Your task to perform on an android device: see tabs open on other devices in the chrome app Image 0: 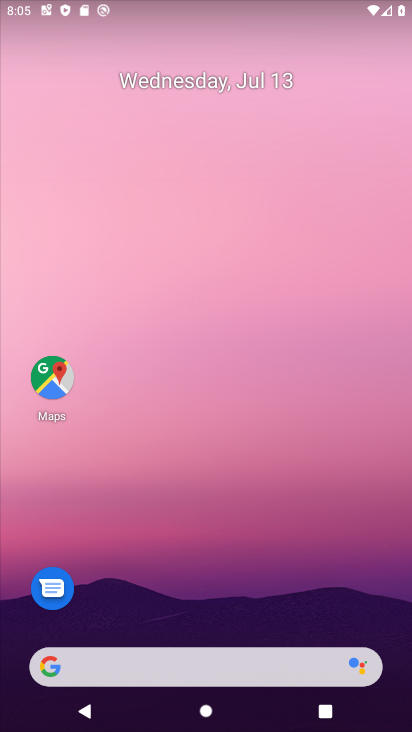
Step 0: drag from (230, 666) to (254, 1)
Your task to perform on an android device: see tabs open on other devices in the chrome app Image 1: 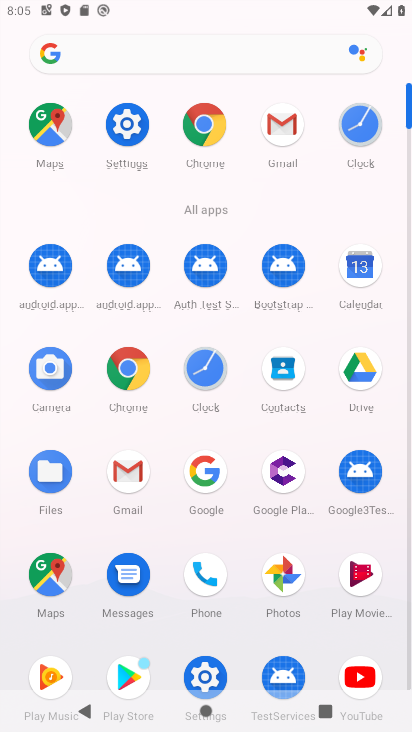
Step 1: click (130, 377)
Your task to perform on an android device: see tabs open on other devices in the chrome app Image 2: 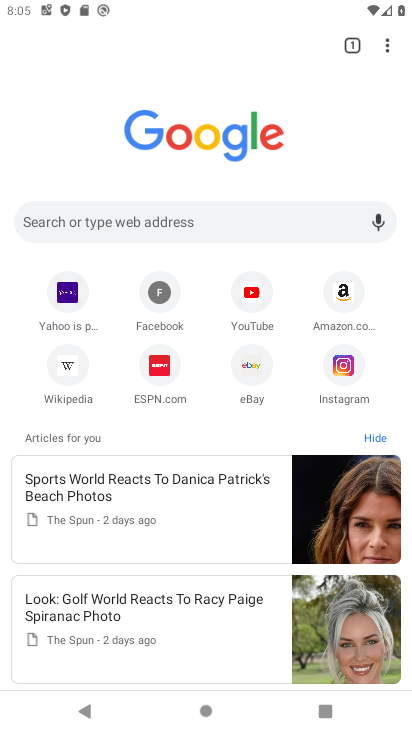
Step 2: click (387, 48)
Your task to perform on an android device: see tabs open on other devices in the chrome app Image 3: 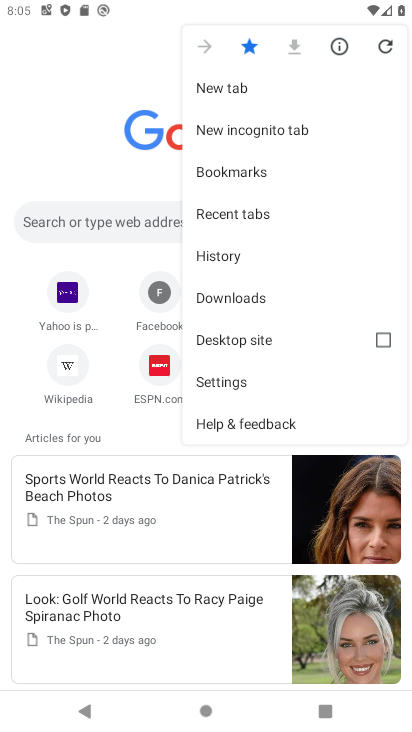
Step 3: click (245, 214)
Your task to perform on an android device: see tabs open on other devices in the chrome app Image 4: 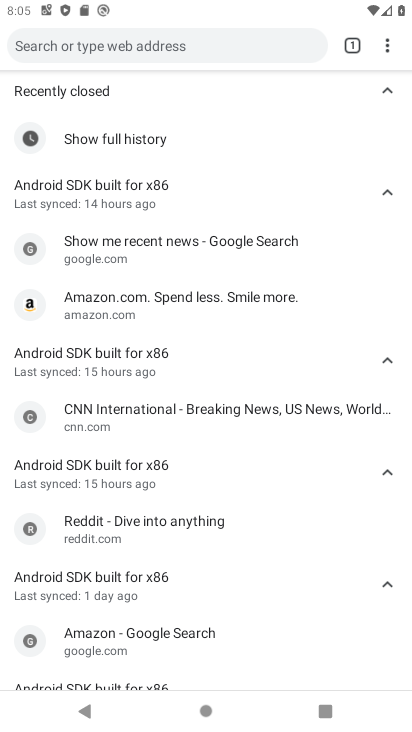
Step 4: task complete